Your task to perform on an android device: open device folders in google photos Image 0: 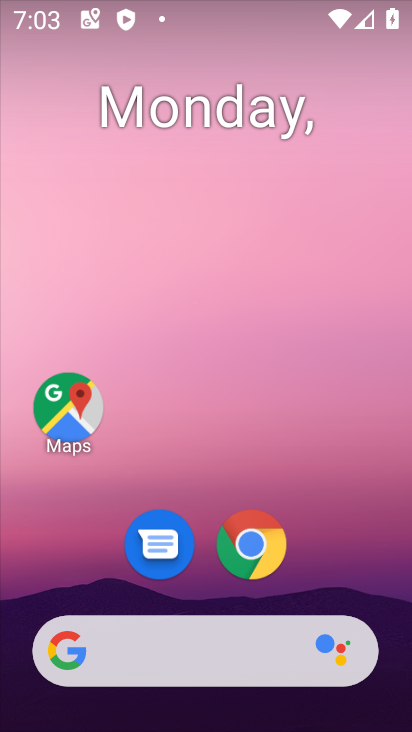
Step 0: drag from (309, 513) to (190, 109)
Your task to perform on an android device: open device folders in google photos Image 1: 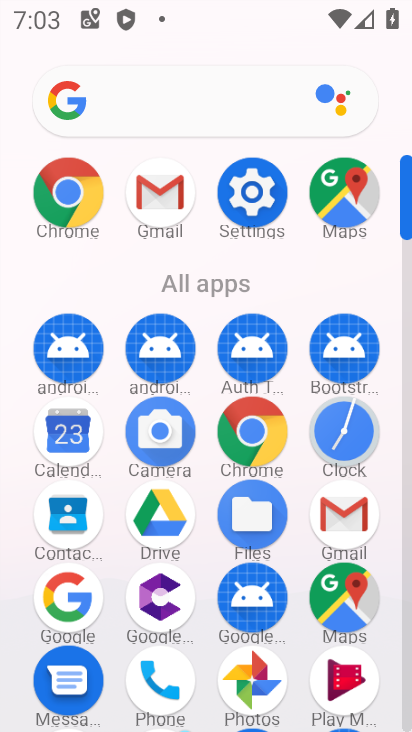
Step 1: click (251, 677)
Your task to perform on an android device: open device folders in google photos Image 2: 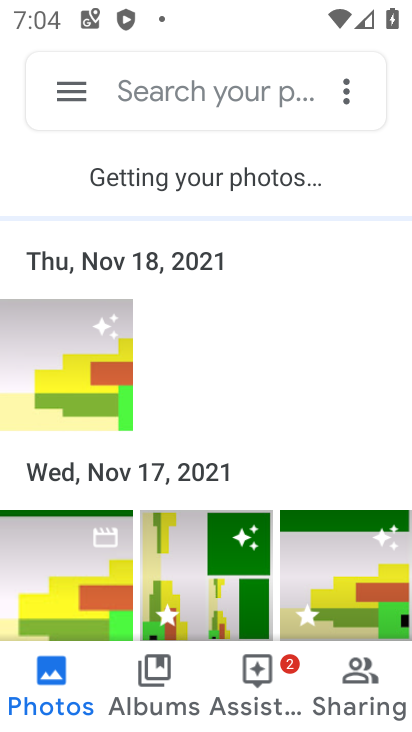
Step 2: click (66, 83)
Your task to perform on an android device: open device folders in google photos Image 3: 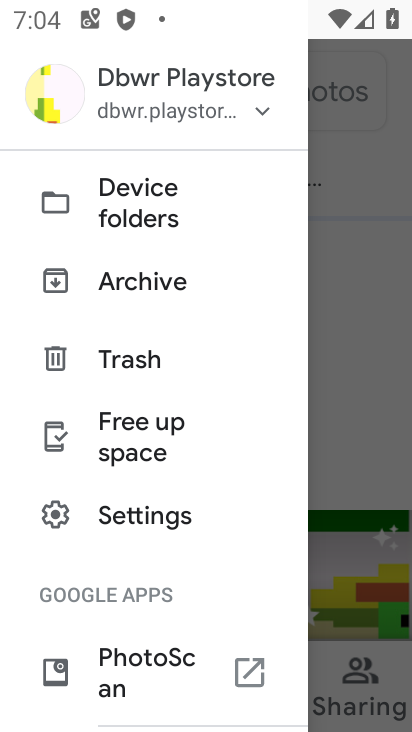
Step 3: click (118, 192)
Your task to perform on an android device: open device folders in google photos Image 4: 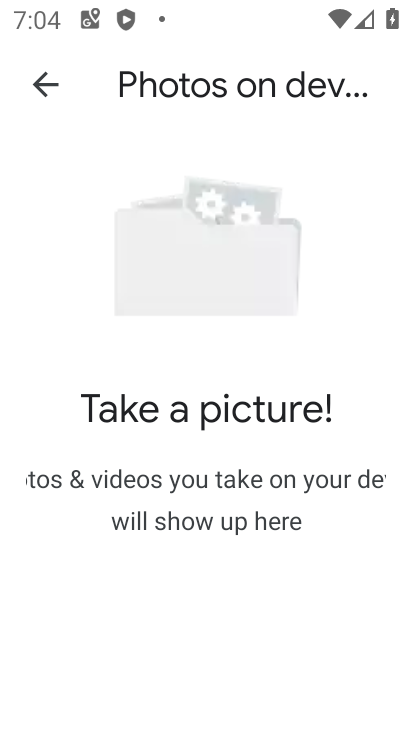
Step 4: task complete